Your task to perform on an android device: Is it going to rain tomorrow? Image 0: 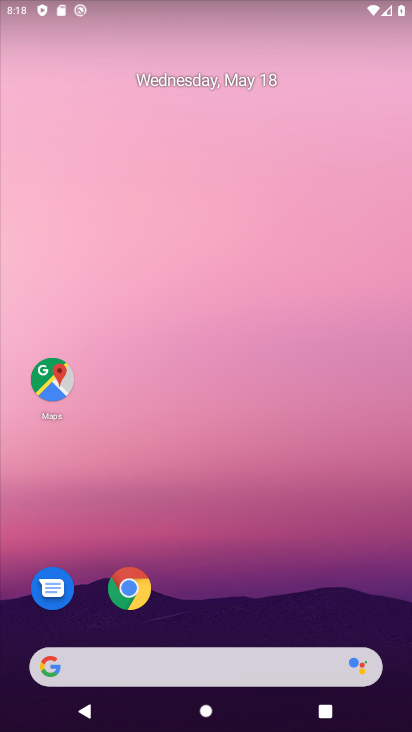
Step 0: click (90, 670)
Your task to perform on an android device: Is it going to rain tomorrow? Image 1: 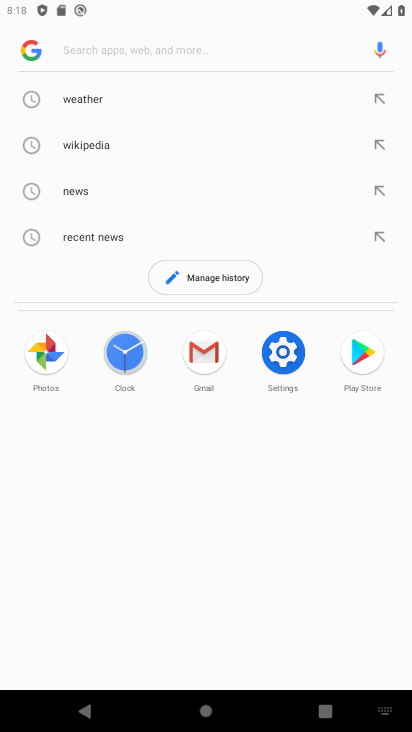
Step 1: click (70, 101)
Your task to perform on an android device: Is it going to rain tomorrow? Image 2: 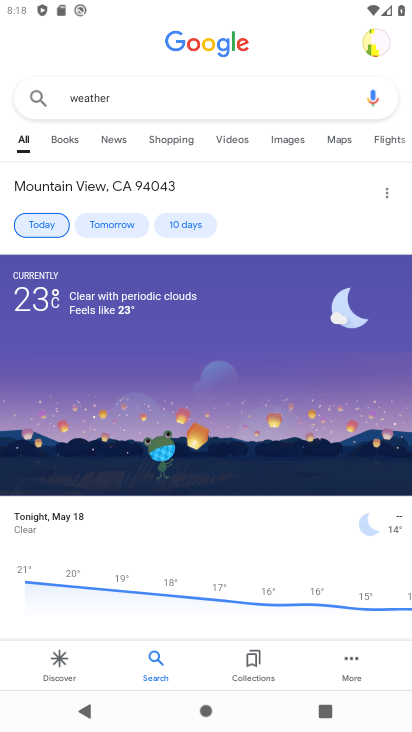
Step 2: click (108, 217)
Your task to perform on an android device: Is it going to rain tomorrow? Image 3: 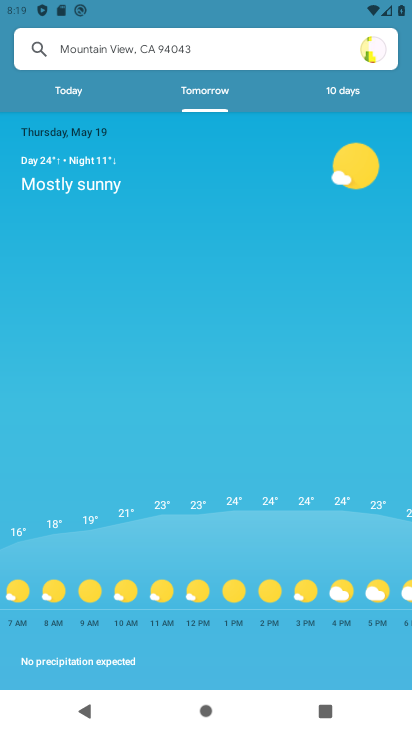
Step 3: task complete